Your task to perform on an android device: check storage Image 0: 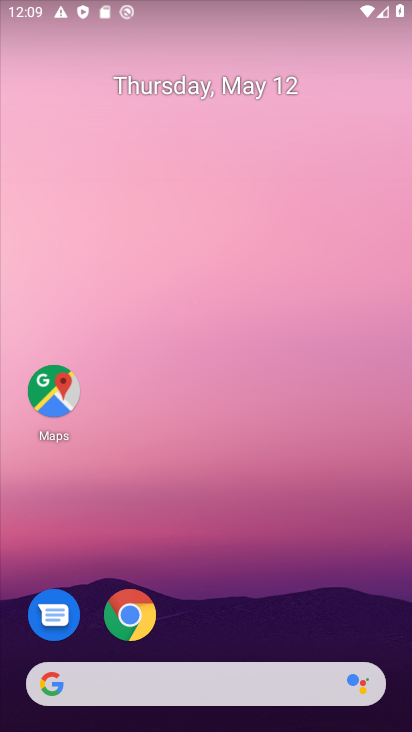
Step 0: drag from (218, 703) to (373, 176)
Your task to perform on an android device: check storage Image 1: 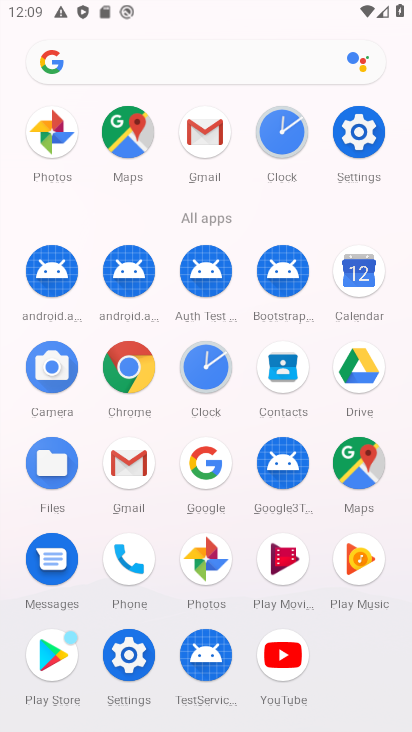
Step 1: click (340, 130)
Your task to perform on an android device: check storage Image 2: 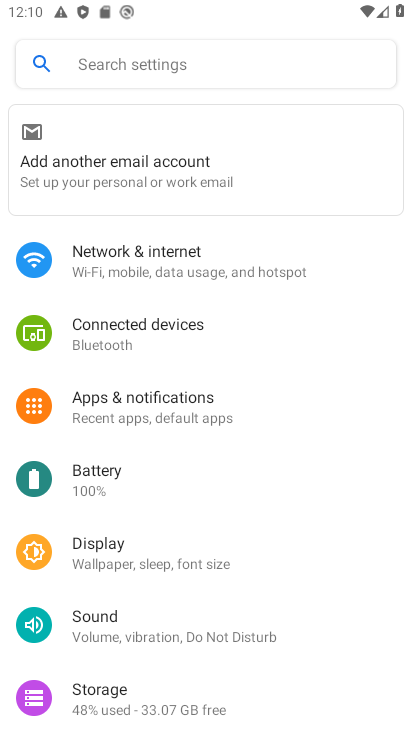
Step 2: click (176, 70)
Your task to perform on an android device: check storage Image 3: 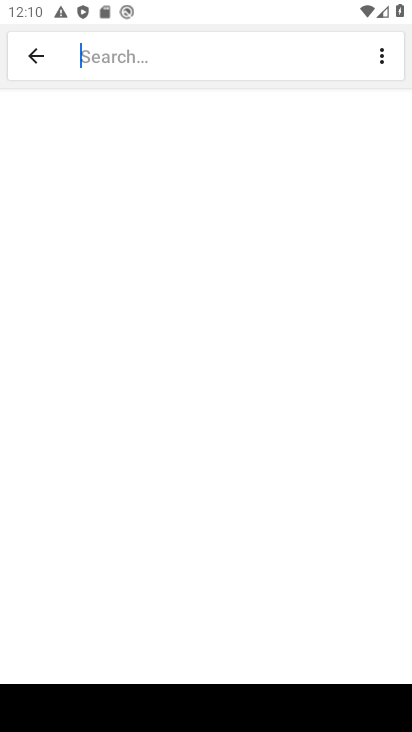
Step 3: drag from (405, 709) to (411, 593)
Your task to perform on an android device: check storage Image 4: 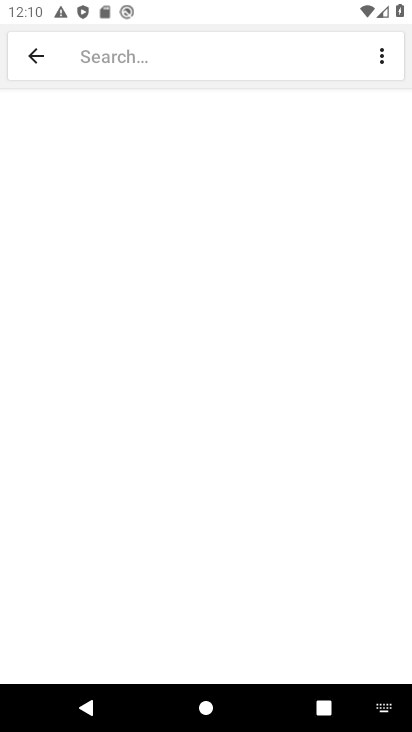
Step 4: click (379, 709)
Your task to perform on an android device: check storage Image 5: 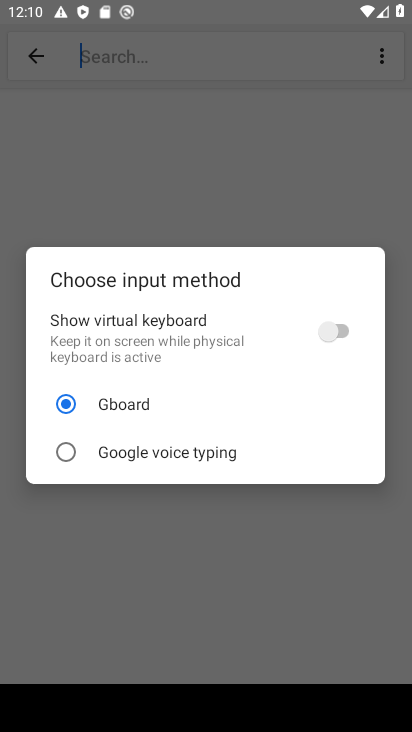
Step 5: click (342, 319)
Your task to perform on an android device: check storage Image 6: 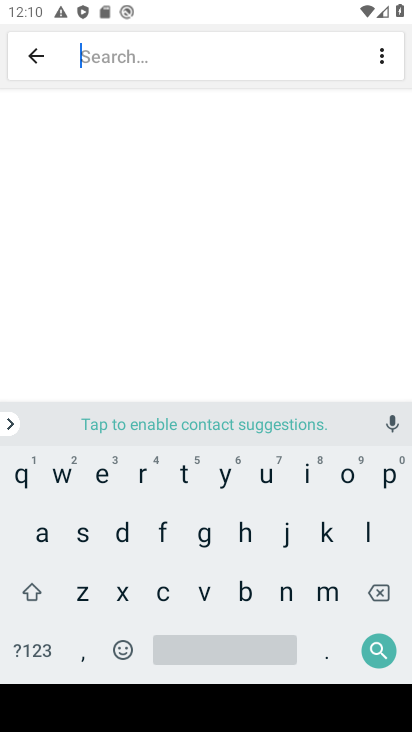
Step 6: click (77, 533)
Your task to perform on an android device: check storage Image 7: 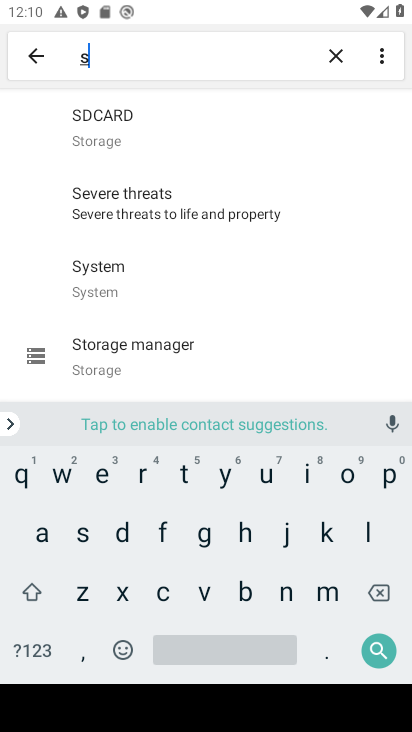
Step 7: click (186, 473)
Your task to perform on an android device: check storage Image 8: 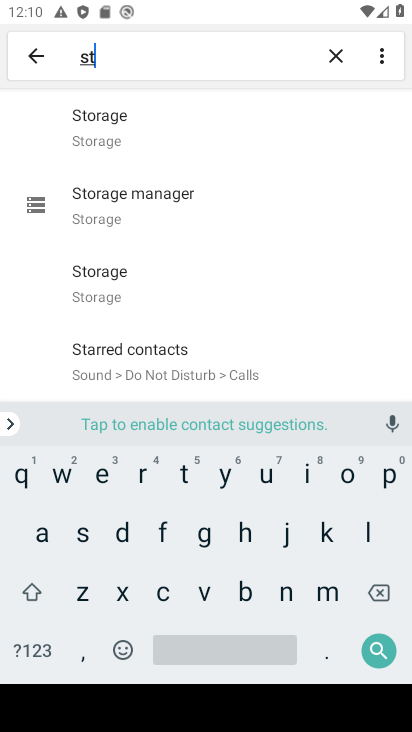
Step 8: click (148, 138)
Your task to perform on an android device: check storage Image 9: 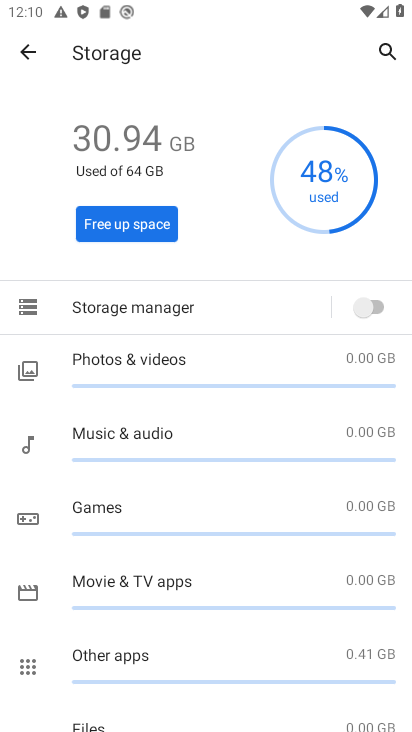
Step 9: task complete